Your task to perform on an android device: toggle javascript in the chrome app Image 0: 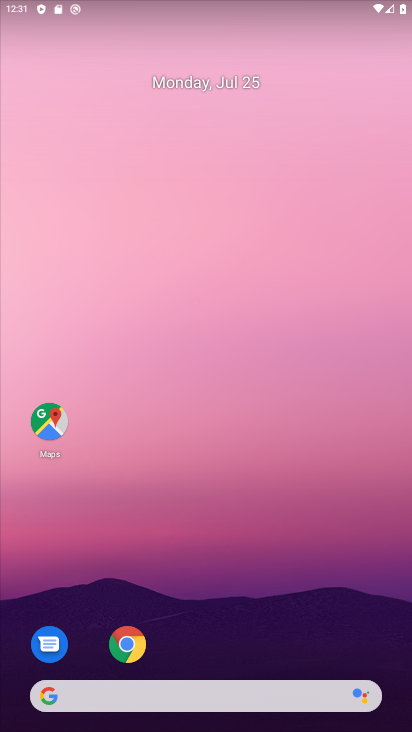
Step 0: drag from (207, 697) to (210, 156)
Your task to perform on an android device: toggle javascript in the chrome app Image 1: 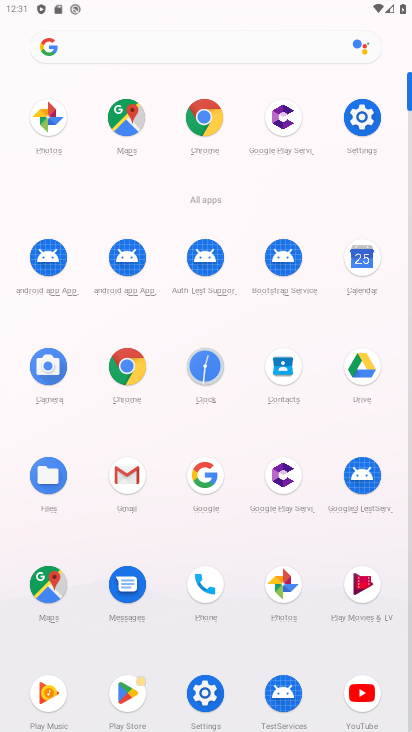
Step 1: click (201, 124)
Your task to perform on an android device: toggle javascript in the chrome app Image 2: 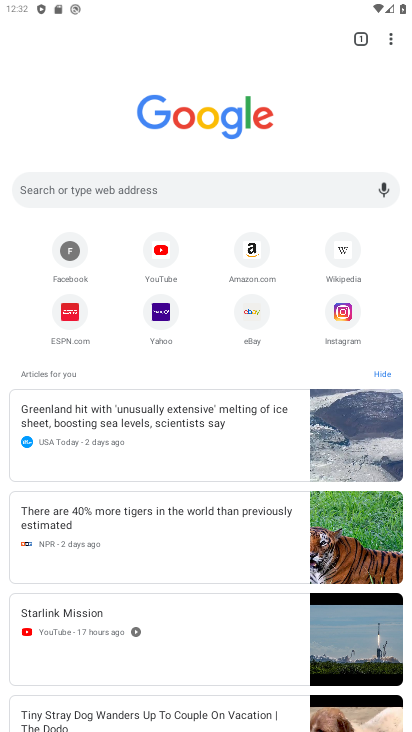
Step 2: click (392, 42)
Your task to perform on an android device: toggle javascript in the chrome app Image 3: 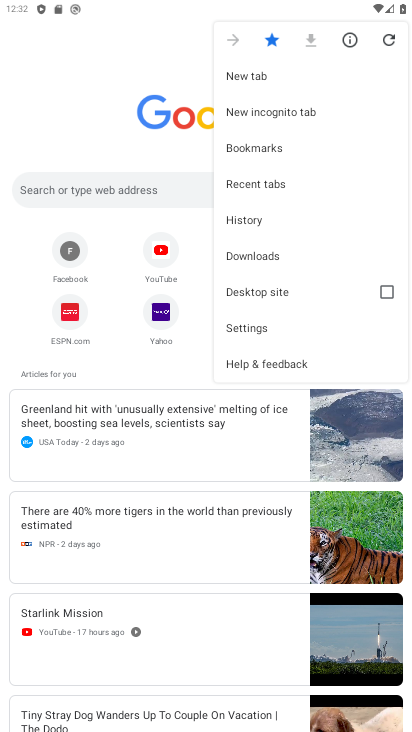
Step 3: click (253, 328)
Your task to perform on an android device: toggle javascript in the chrome app Image 4: 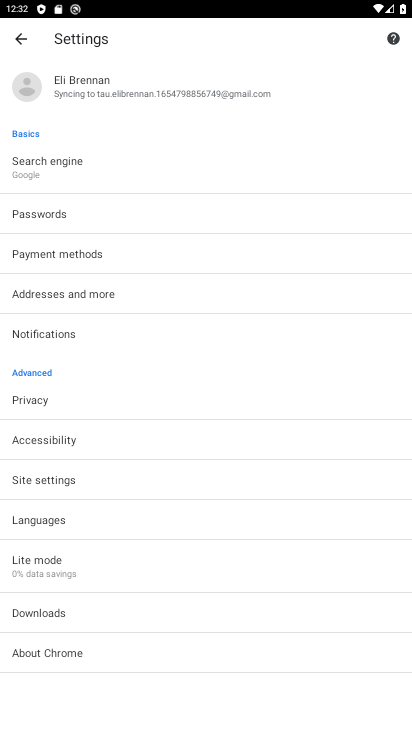
Step 4: click (48, 478)
Your task to perform on an android device: toggle javascript in the chrome app Image 5: 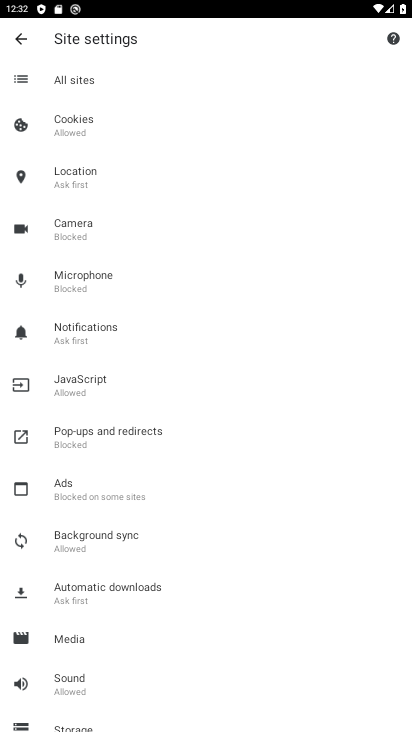
Step 5: click (62, 382)
Your task to perform on an android device: toggle javascript in the chrome app Image 6: 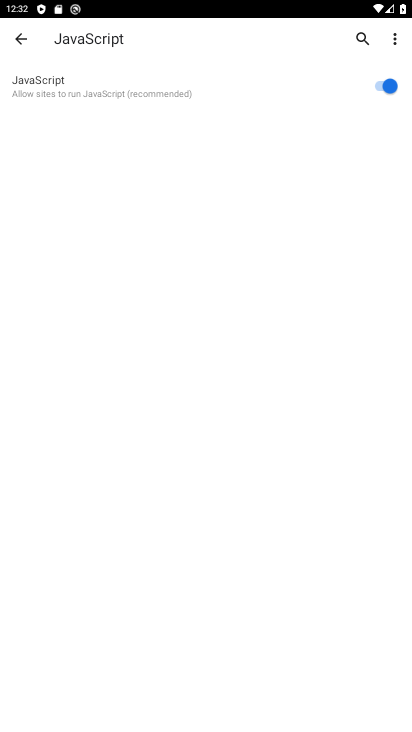
Step 6: click (377, 83)
Your task to perform on an android device: toggle javascript in the chrome app Image 7: 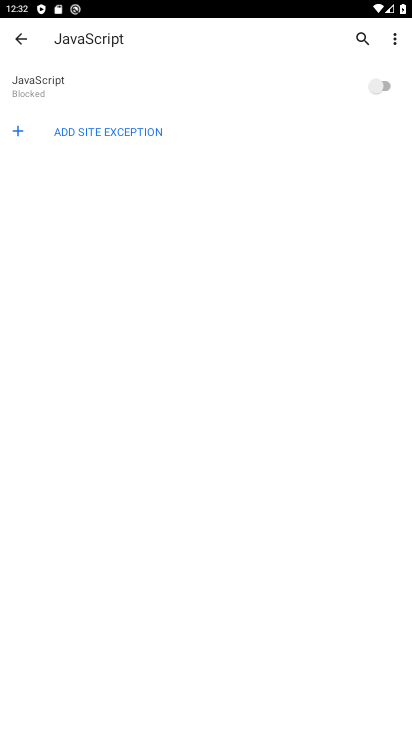
Step 7: task complete